Your task to perform on an android device: Open Yahoo.com Image 0: 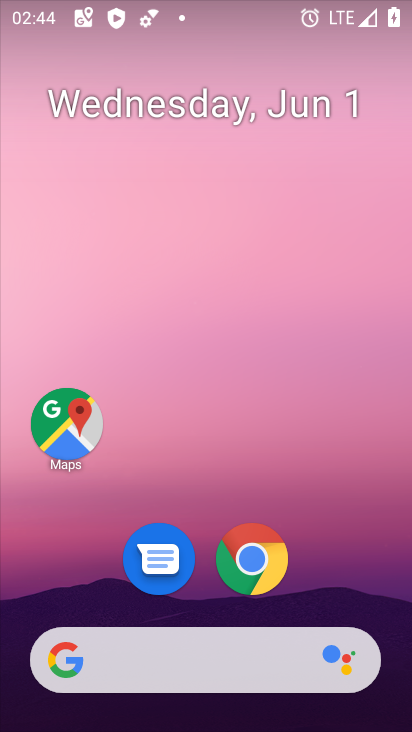
Step 0: press home button
Your task to perform on an android device: Open Yahoo.com Image 1: 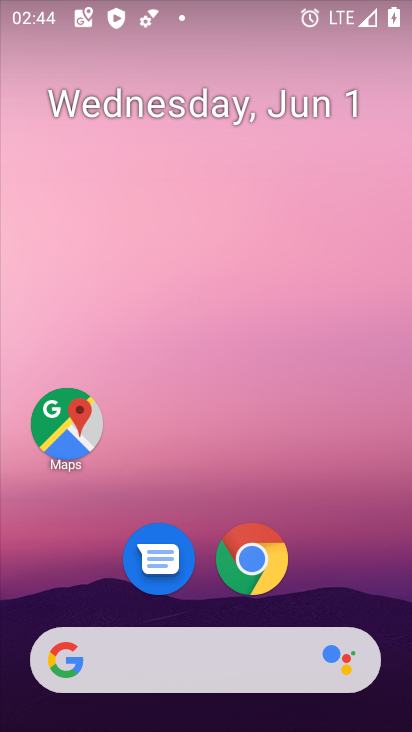
Step 1: click (60, 659)
Your task to perform on an android device: Open Yahoo.com Image 2: 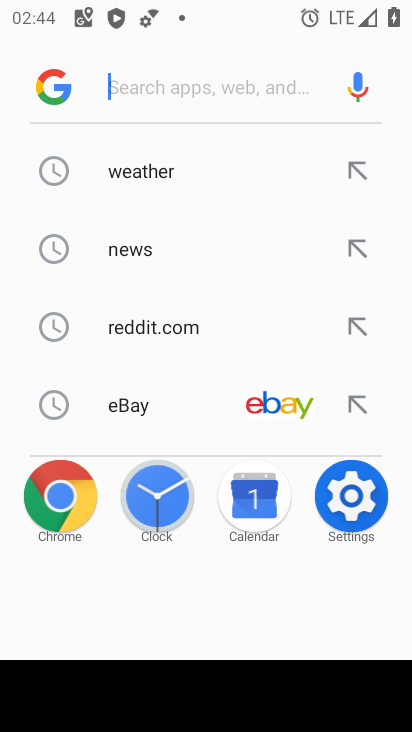
Step 2: type " Yahoo.com"
Your task to perform on an android device: Open Yahoo.com Image 3: 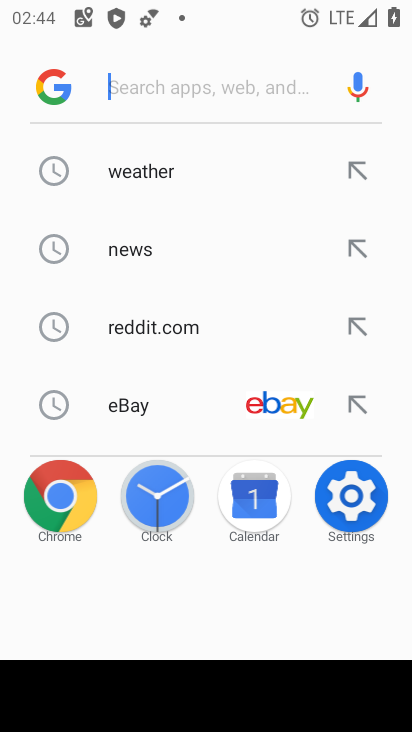
Step 3: click (179, 89)
Your task to perform on an android device: Open Yahoo.com Image 4: 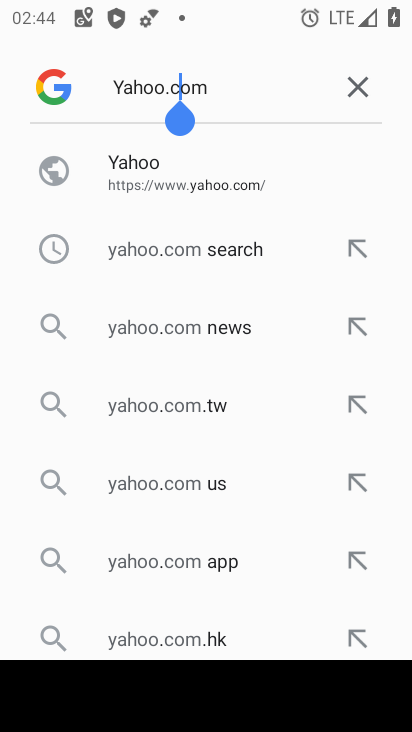
Step 4: click (127, 157)
Your task to perform on an android device: Open Yahoo.com Image 5: 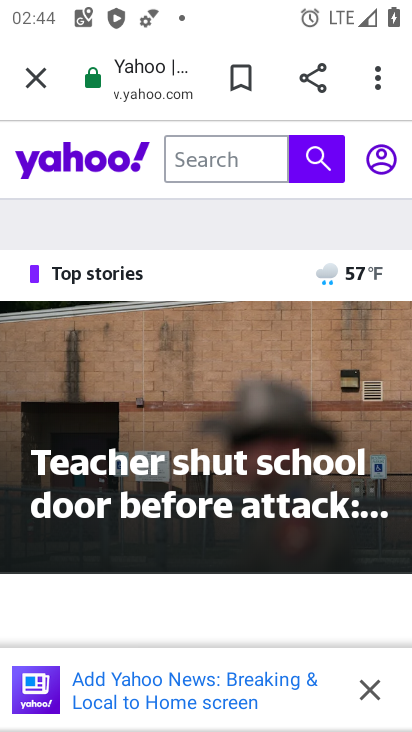
Step 5: task complete